Your task to perform on an android device: all mails in gmail Image 0: 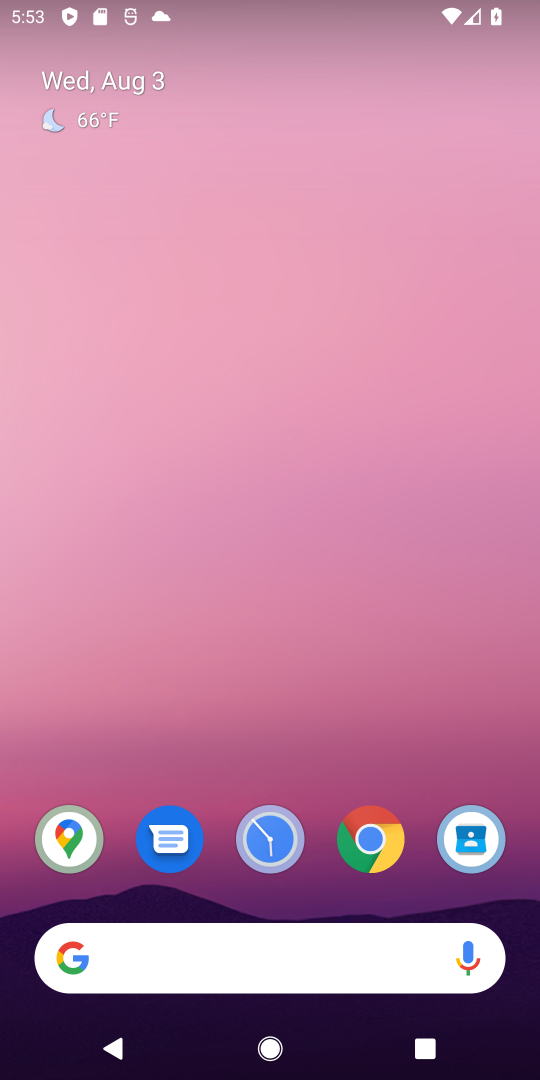
Step 0: drag from (313, 771) to (380, 20)
Your task to perform on an android device: all mails in gmail Image 1: 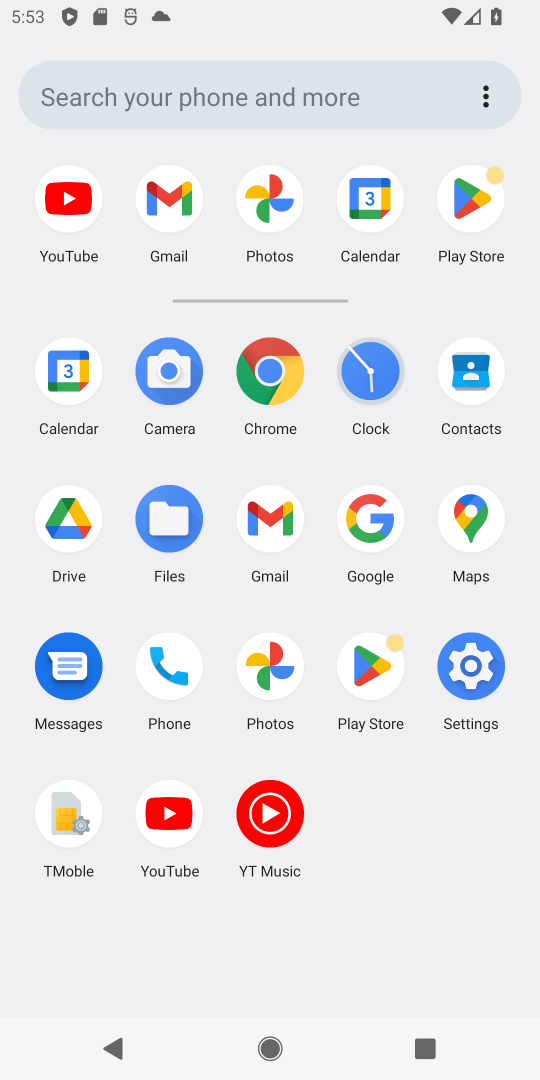
Step 1: click (175, 223)
Your task to perform on an android device: all mails in gmail Image 2: 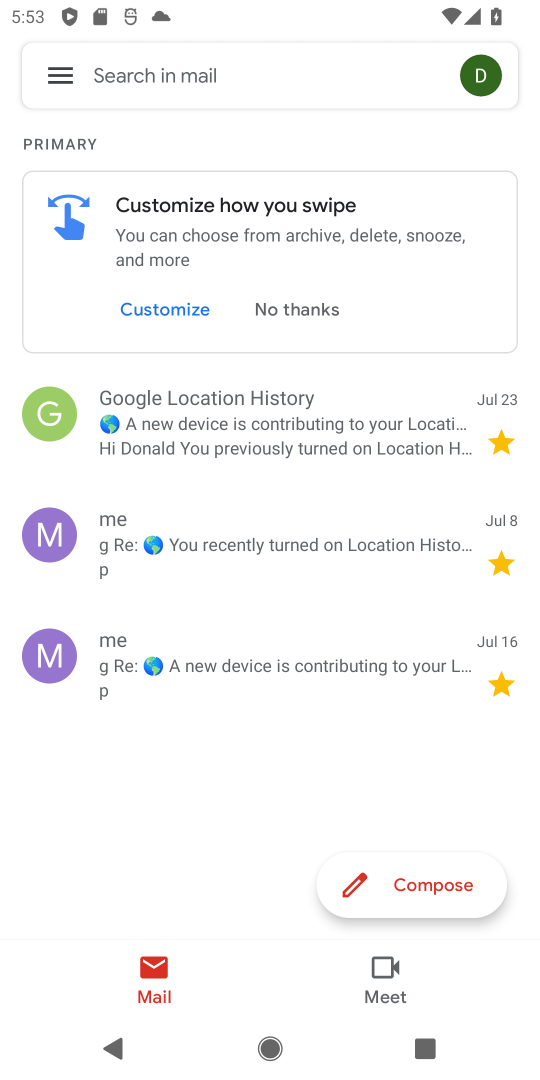
Step 2: click (51, 74)
Your task to perform on an android device: all mails in gmail Image 3: 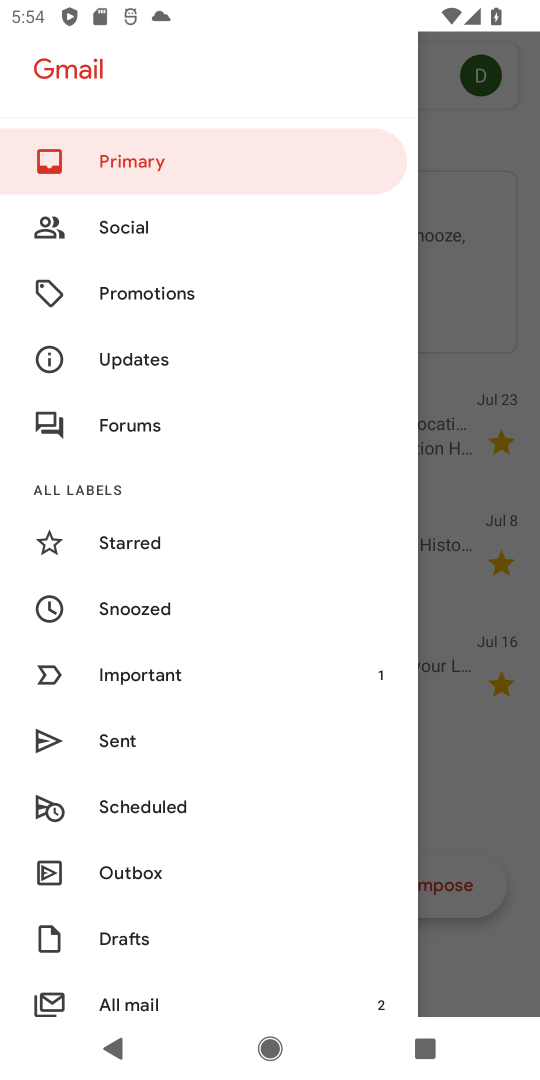
Step 3: click (183, 1002)
Your task to perform on an android device: all mails in gmail Image 4: 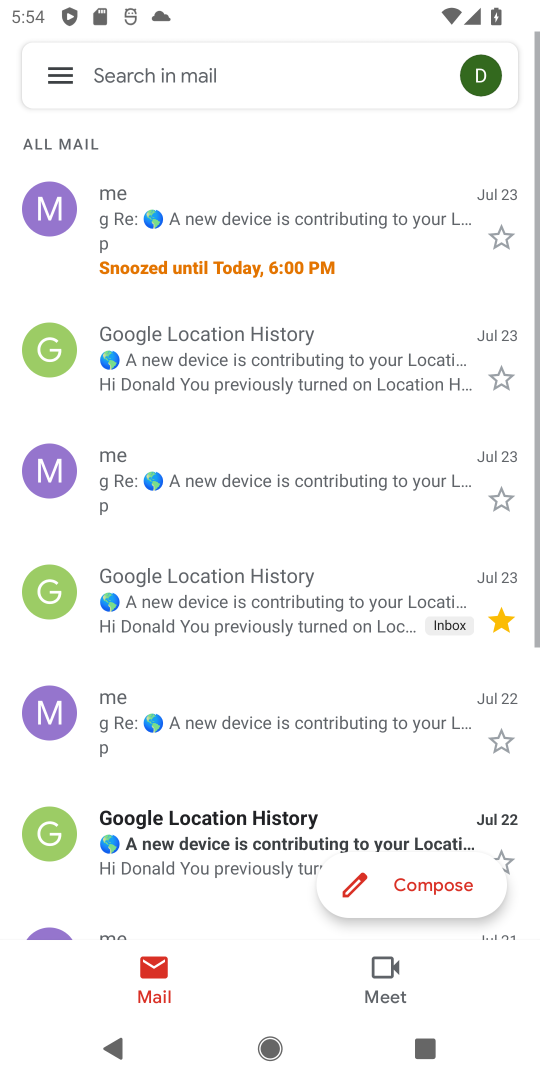
Step 4: task complete